Your task to perform on an android device: turn on showing notifications on the lock screen Image 0: 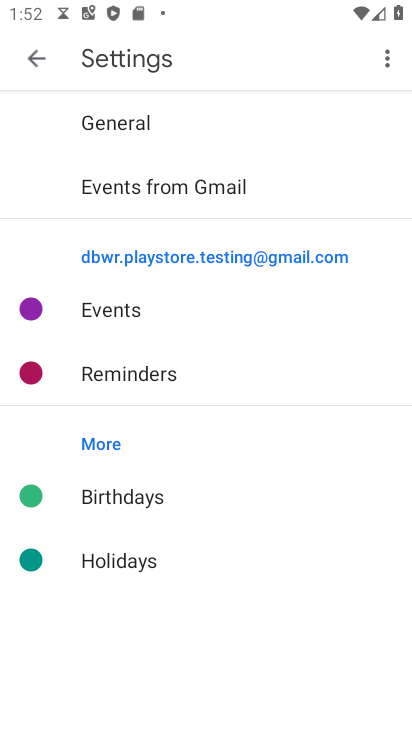
Step 0: press back button
Your task to perform on an android device: turn on showing notifications on the lock screen Image 1: 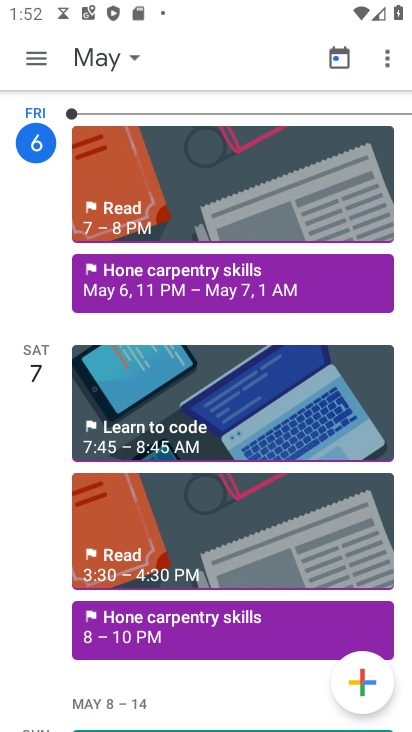
Step 1: press back button
Your task to perform on an android device: turn on showing notifications on the lock screen Image 2: 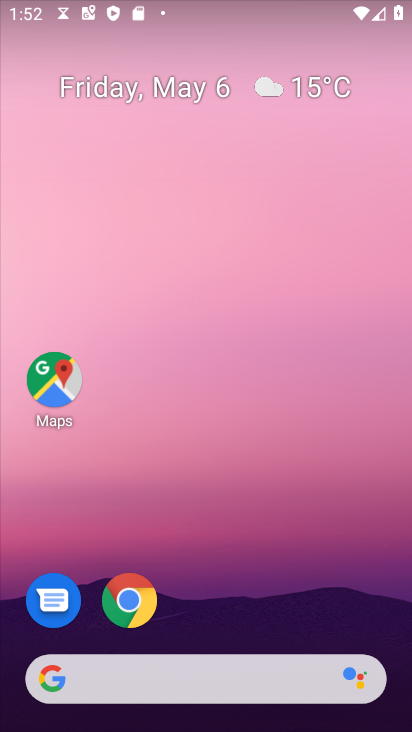
Step 2: drag from (281, 483) to (238, 1)
Your task to perform on an android device: turn on showing notifications on the lock screen Image 3: 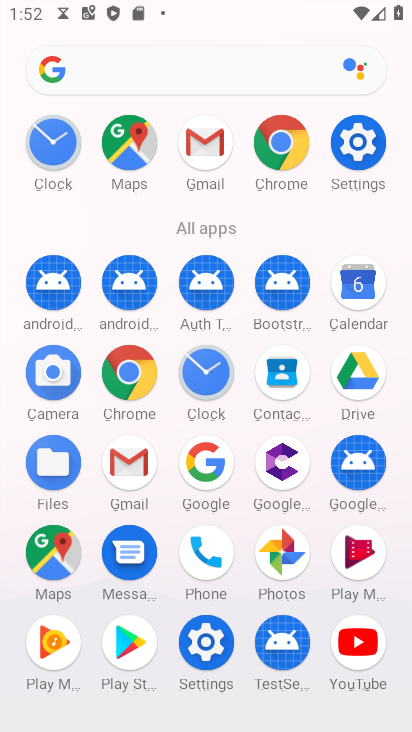
Step 3: click (202, 643)
Your task to perform on an android device: turn on showing notifications on the lock screen Image 4: 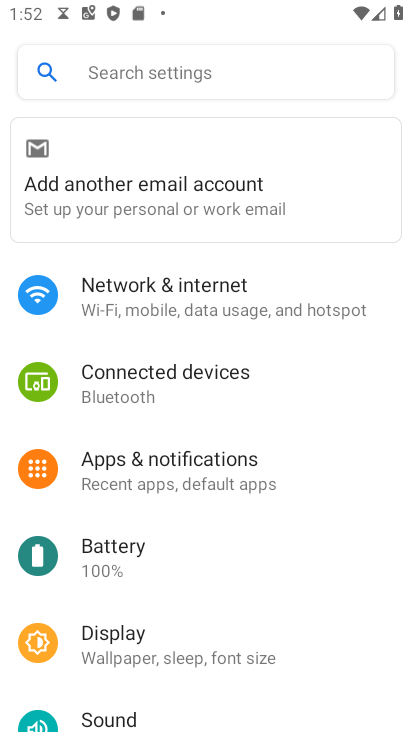
Step 4: click (204, 456)
Your task to perform on an android device: turn on showing notifications on the lock screen Image 5: 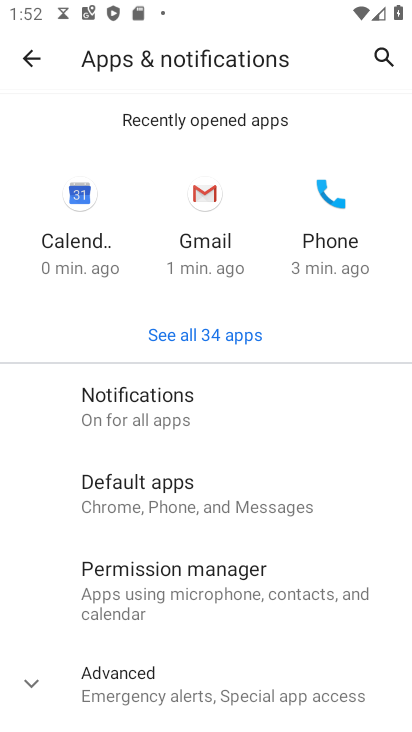
Step 5: click (190, 429)
Your task to perform on an android device: turn on showing notifications on the lock screen Image 6: 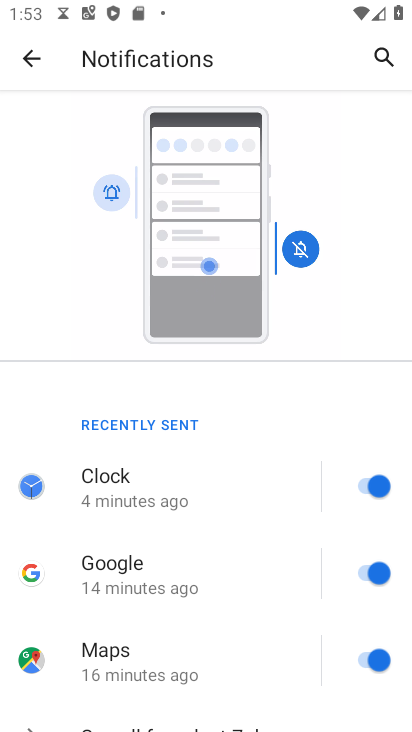
Step 6: drag from (223, 586) to (184, 107)
Your task to perform on an android device: turn on showing notifications on the lock screen Image 7: 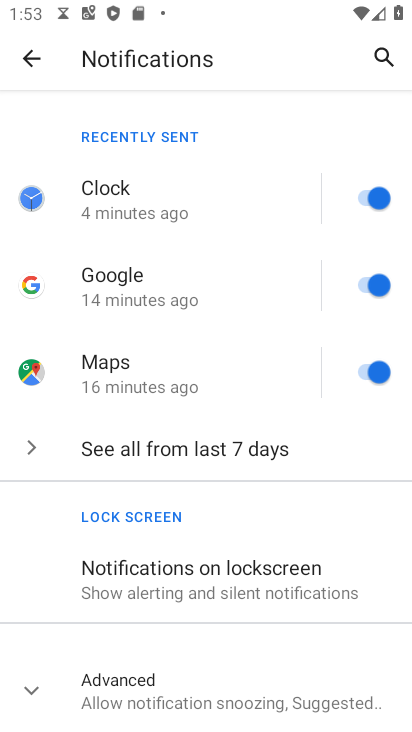
Step 7: drag from (216, 568) to (248, 273)
Your task to perform on an android device: turn on showing notifications on the lock screen Image 8: 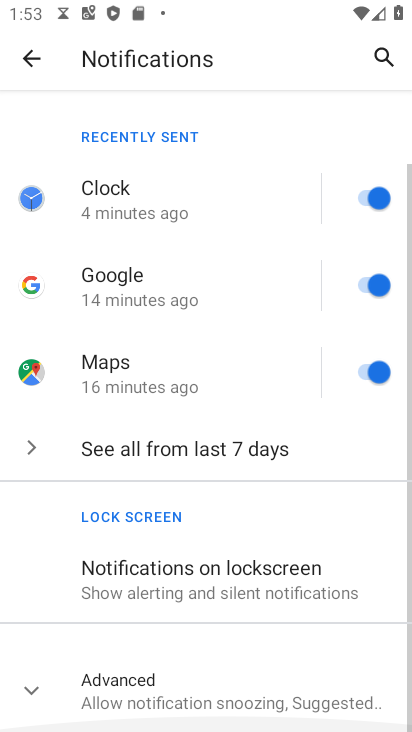
Step 8: click (233, 574)
Your task to perform on an android device: turn on showing notifications on the lock screen Image 9: 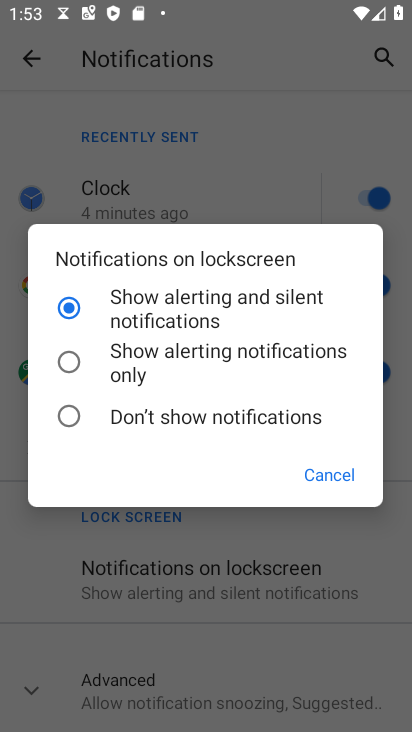
Step 9: click (190, 301)
Your task to perform on an android device: turn on showing notifications on the lock screen Image 10: 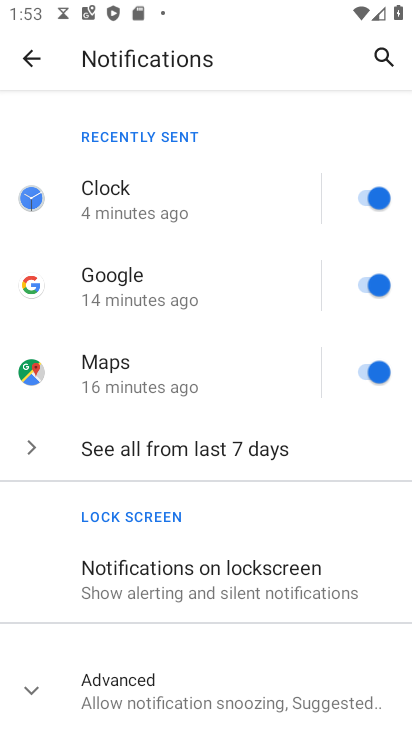
Step 10: task complete